Your task to perform on an android device: How much does a 3 bedroom apartment rent for in New York? Image 0: 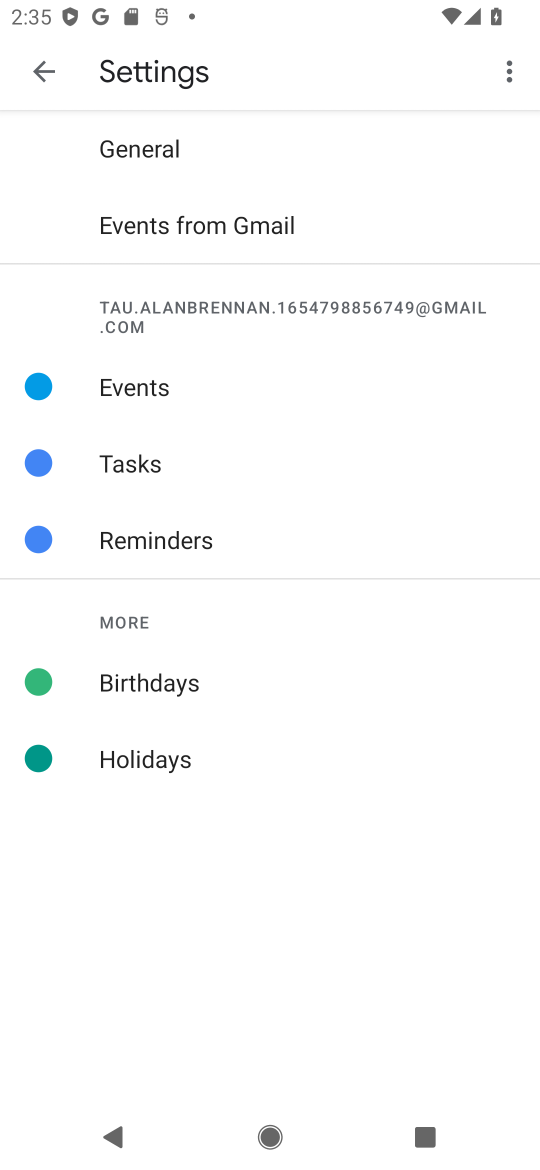
Step 0: press home button
Your task to perform on an android device: How much does a 3 bedroom apartment rent for in New York? Image 1: 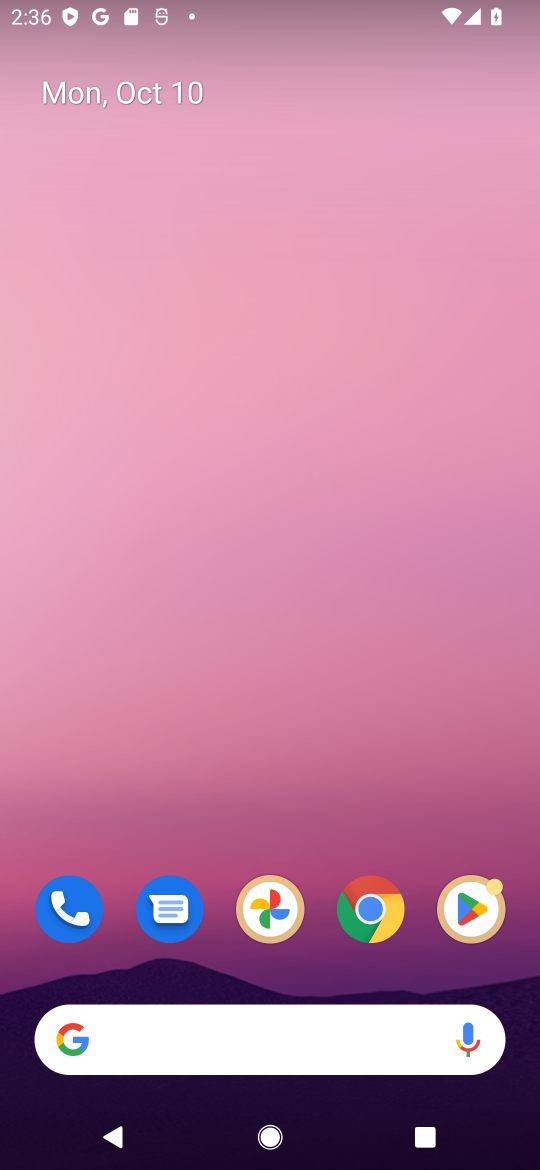
Step 1: click (379, 912)
Your task to perform on an android device: How much does a 3 bedroom apartment rent for in New York? Image 2: 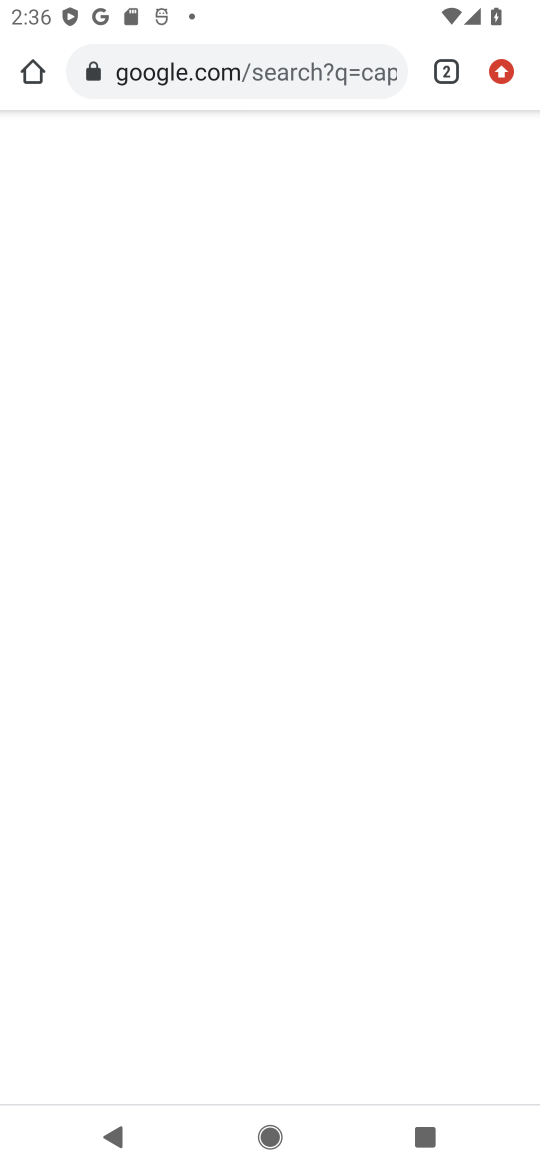
Step 2: click (193, 47)
Your task to perform on an android device: How much does a 3 bedroom apartment rent for in New York? Image 3: 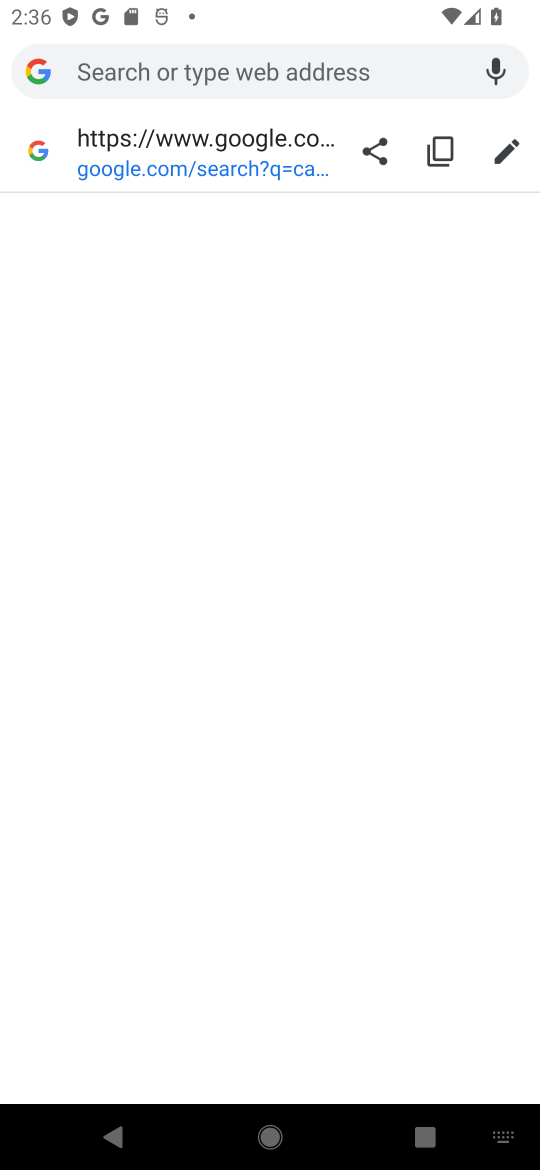
Step 3: type "How much does a 3 bedroom apartment rent for in New York?"
Your task to perform on an android device: How much does a 3 bedroom apartment rent for in New York? Image 4: 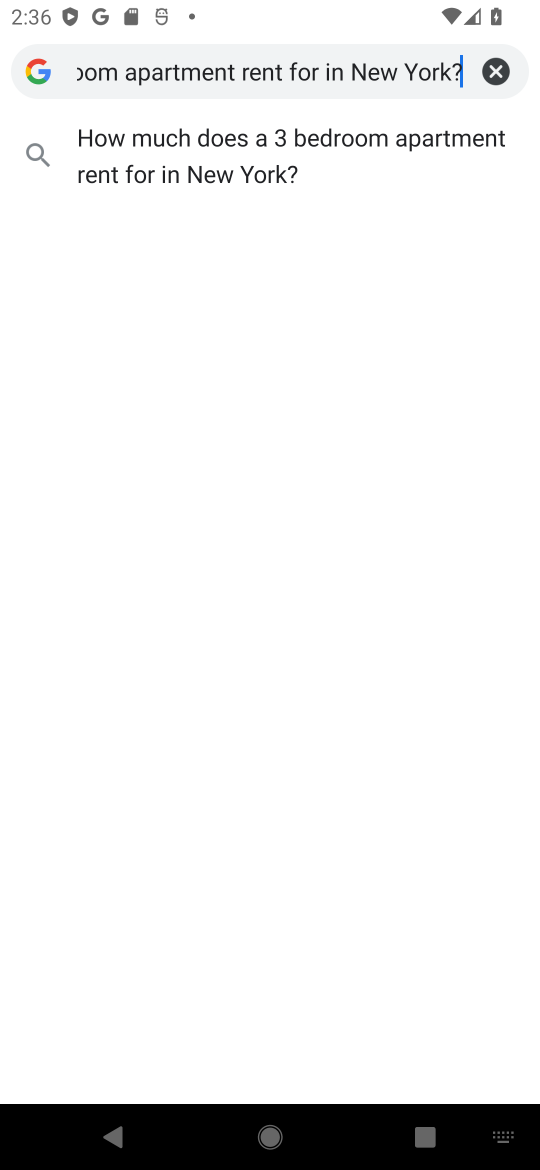
Step 4: click (157, 141)
Your task to perform on an android device: How much does a 3 bedroom apartment rent for in New York? Image 5: 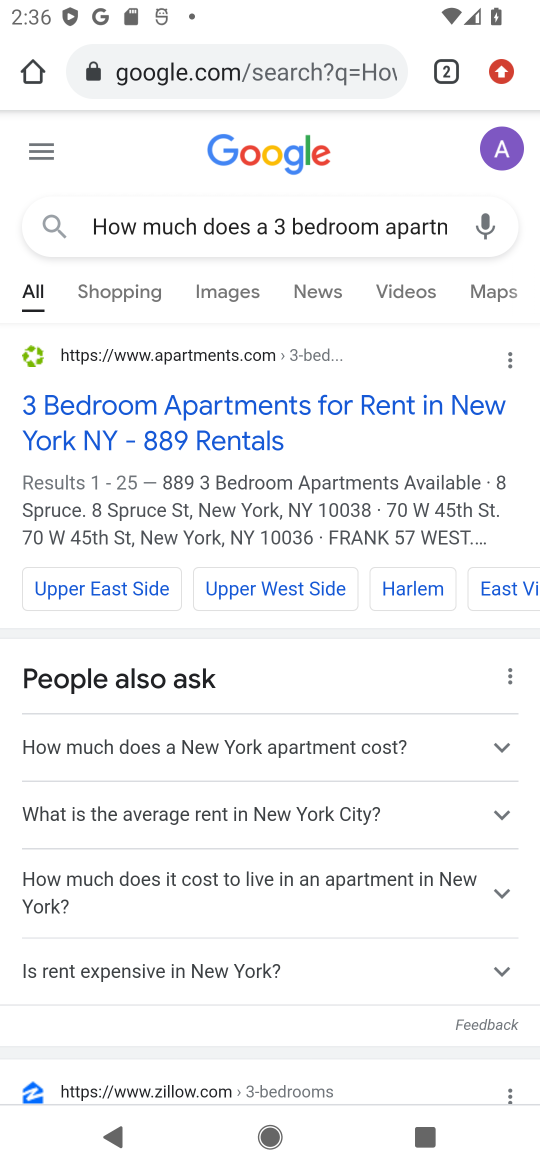
Step 5: click (98, 405)
Your task to perform on an android device: How much does a 3 bedroom apartment rent for in New York? Image 6: 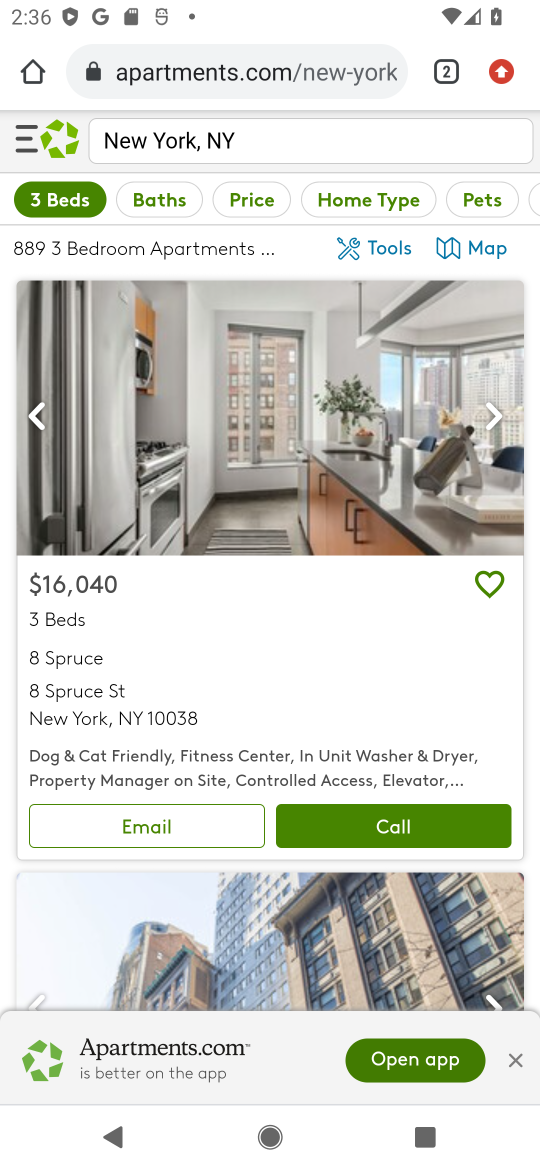
Step 6: task complete